Your task to perform on an android device: open app "DoorDash - Dasher" (install if not already installed) and go to login screen Image 0: 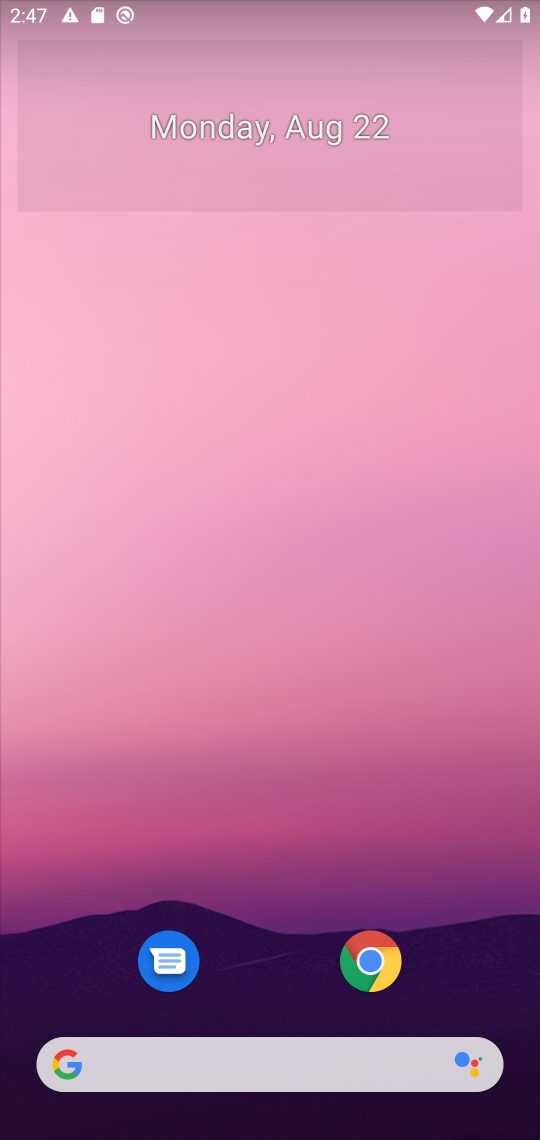
Step 0: press home button
Your task to perform on an android device: open app "DoorDash - Dasher" (install if not already installed) and go to login screen Image 1: 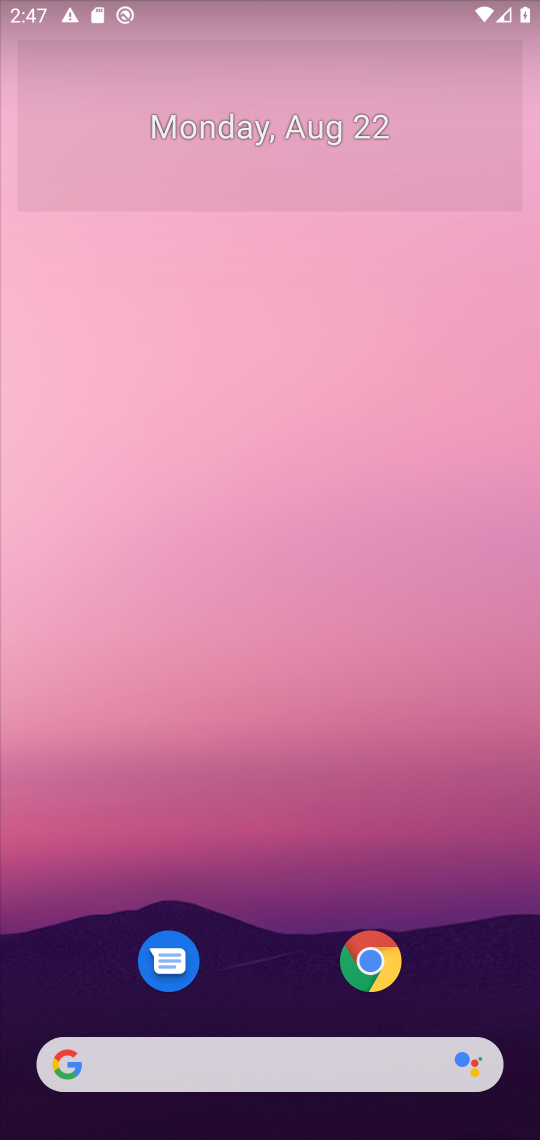
Step 1: drag from (463, 956) to (458, 244)
Your task to perform on an android device: open app "DoorDash - Dasher" (install if not already installed) and go to login screen Image 2: 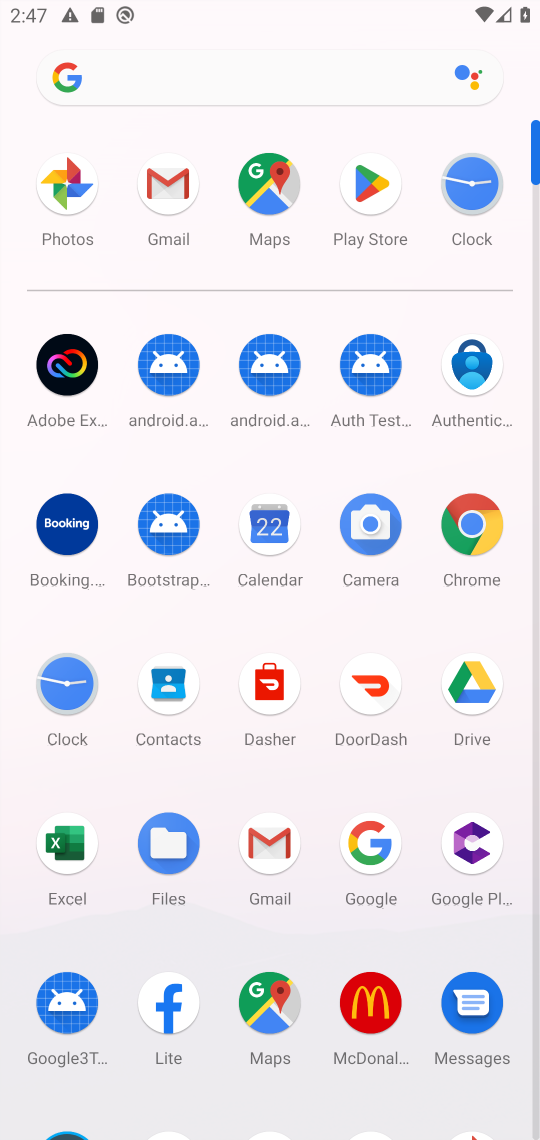
Step 2: click (370, 192)
Your task to perform on an android device: open app "DoorDash - Dasher" (install if not already installed) and go to login screen Image 3: 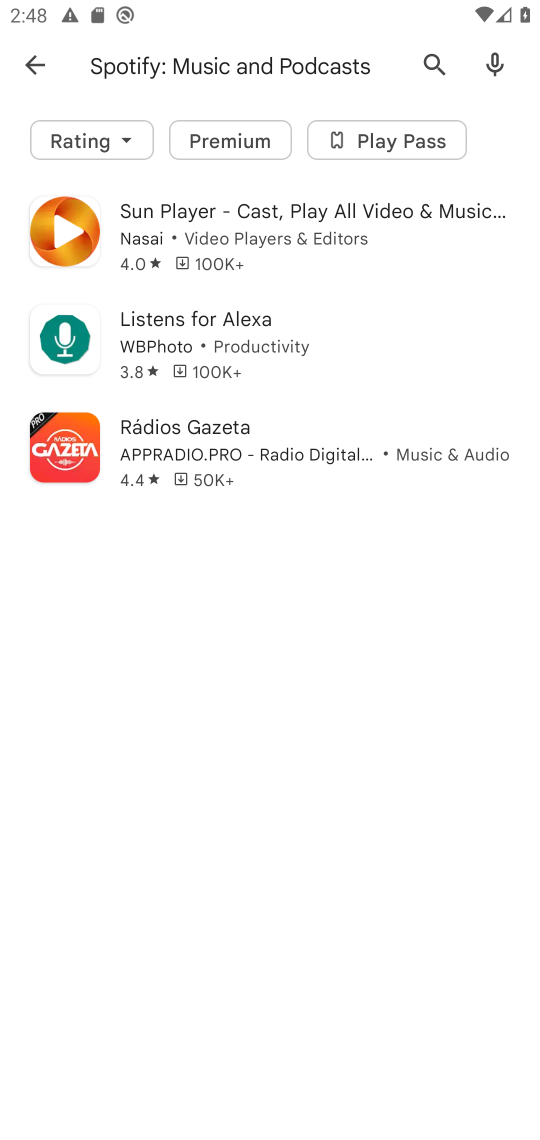
Step 3: press back button
Your task to perform on an android device: open app "DoorDash - Dasher" (install if not already installed) and go to login screen Image 4: 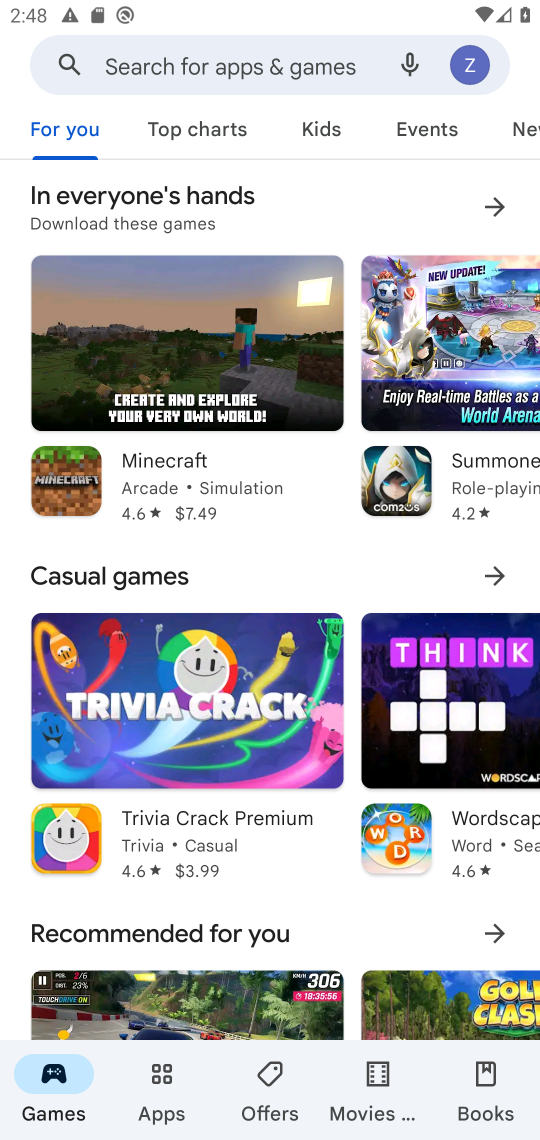
Step 4: click (207, 67)
Your task to perform on an android device: open app "DoorDash - Dasher" (install if not already installed) and go to login screen Image 5: 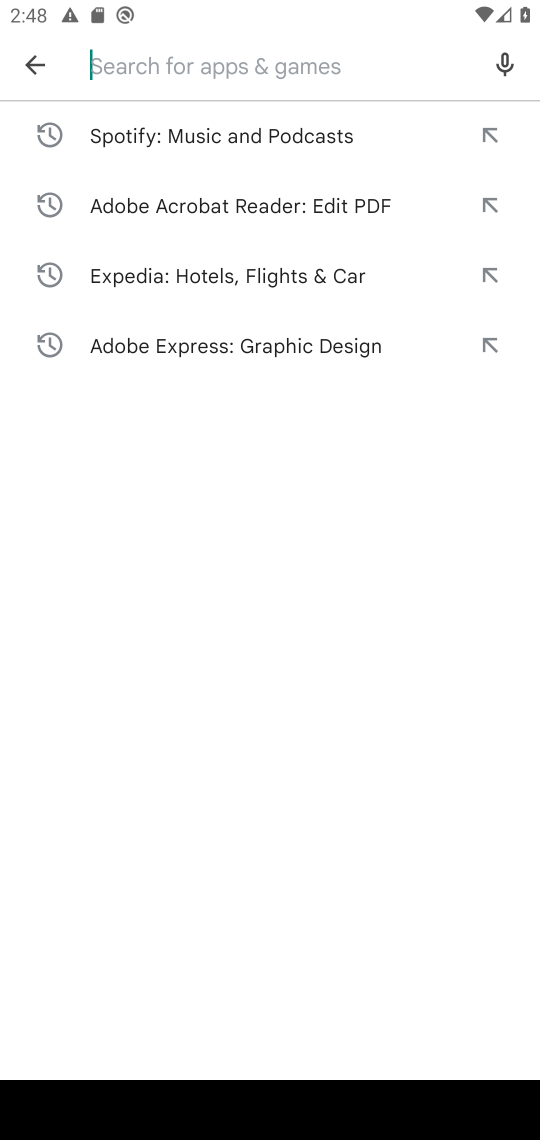
Step 5: type "DoorDash - Dasher"
Your task to perform on an android device: open app "DoorDash - Dasher" (install if not already installed) and go to login screen Image 6: 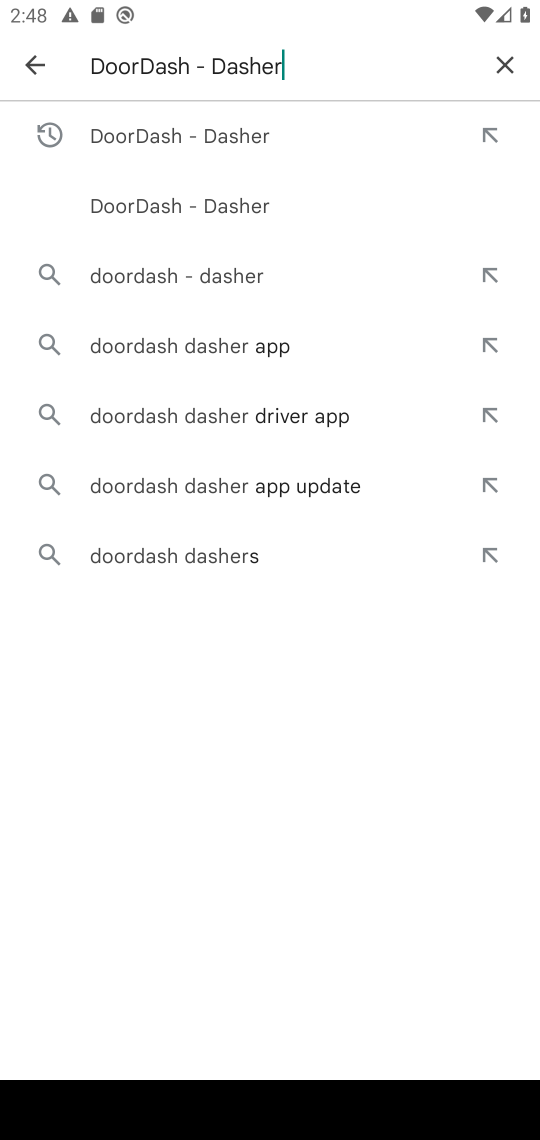
Step 6: press enter
Your task to perform on an android device: open app "DoorDash - Dasher" (install if not already installed) and go to login screen Image 7: 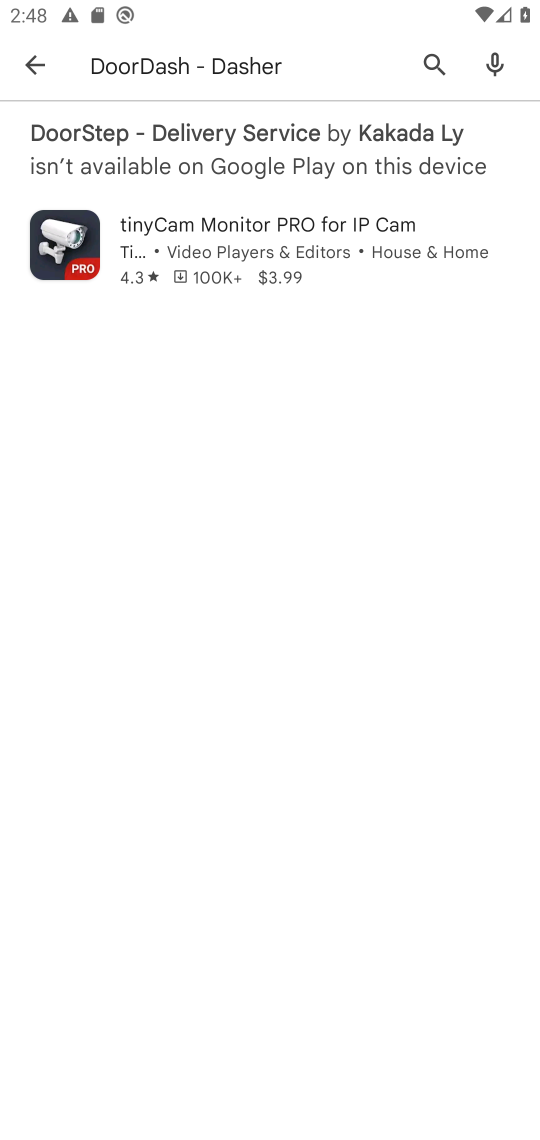
Step 7: task complete